Your task to perform on an android device: Open Google Chrome and click the shortcut for Amazon.com Image 0: 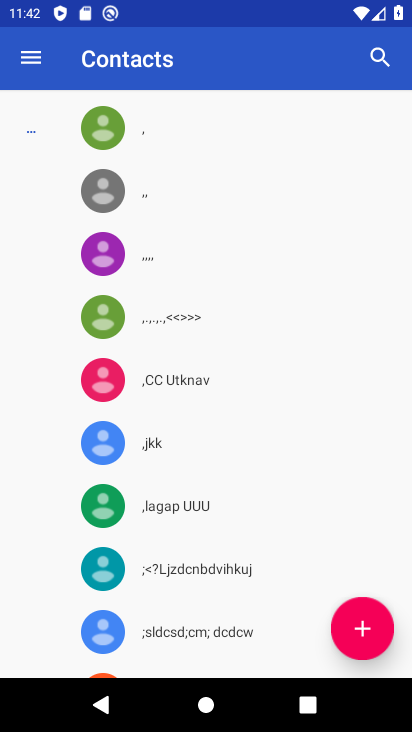
Step 0: press home button
Your task to perform on an android device: Open Google Chrome and click the shortcut for Amazon.com Image 1: 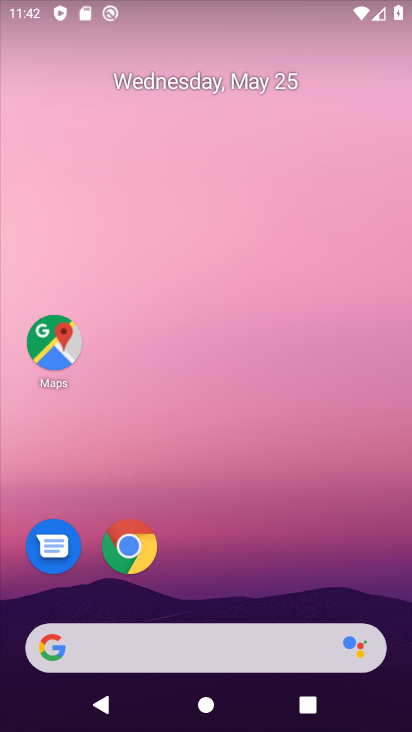
Step 1: click (134, 551)
Your task to perform on an android device: Open Google Chrome and click the shortcut for Amazon.com Image 2: 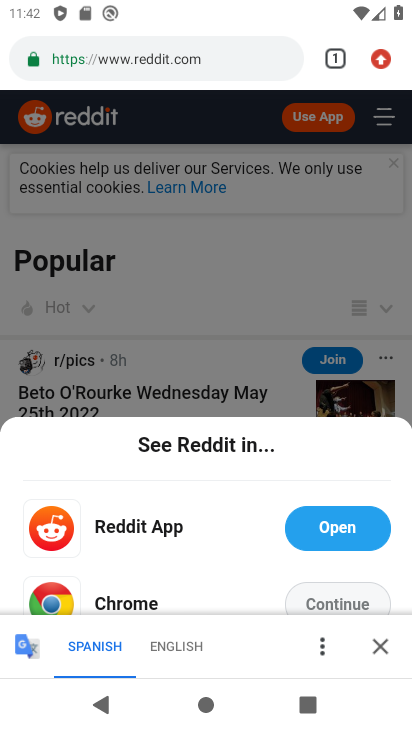
Step 2: click (344, 71)
Your task to perform on an android device: Open Google Chrome and click the shortcut for Amazon.com Image 3: 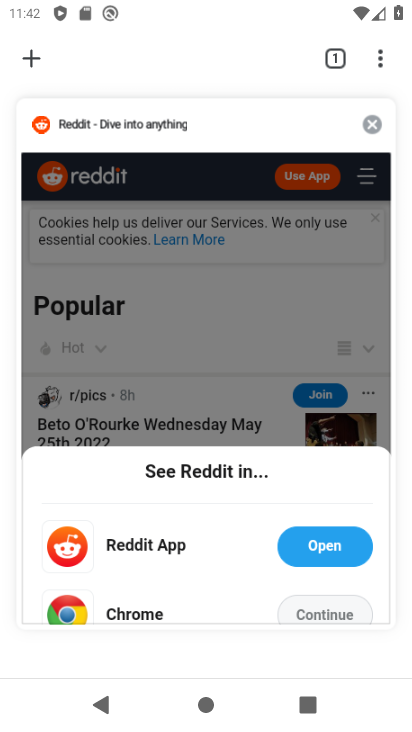
Step 3: click (21, 45)
Your task to perform on an android device: Open Google Chrome and click the shortcut for Amazon.com Image 4: 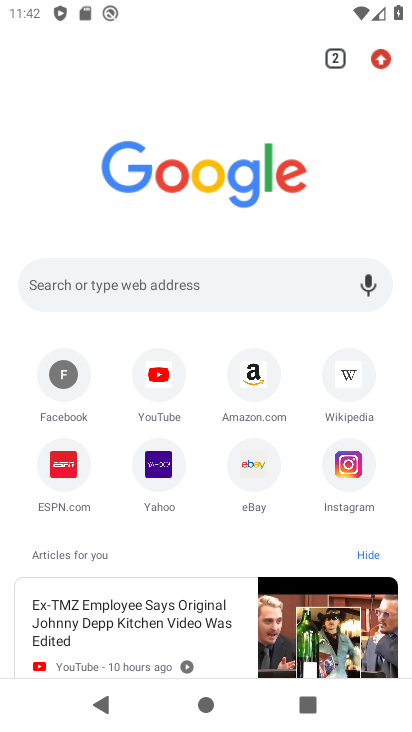
Step 4: click (257, 383)
Your task to perform on an android device: Open Google Chrome and click the shortcut for Amazon.com Image 5: 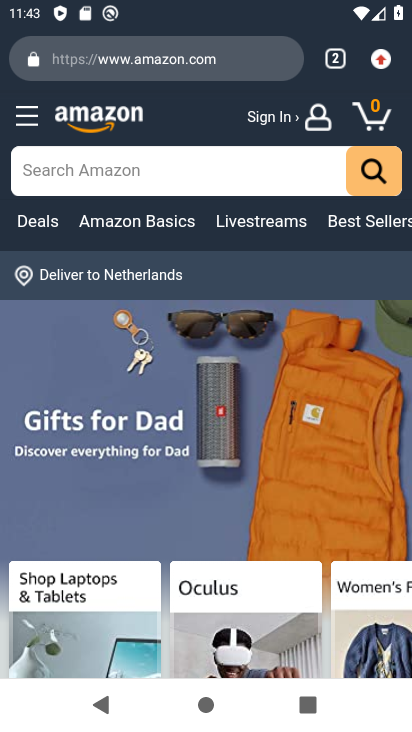
Step 5: task complete